Your task to perform on an android device: see tabs open on other devices in the chrome app Image 0: 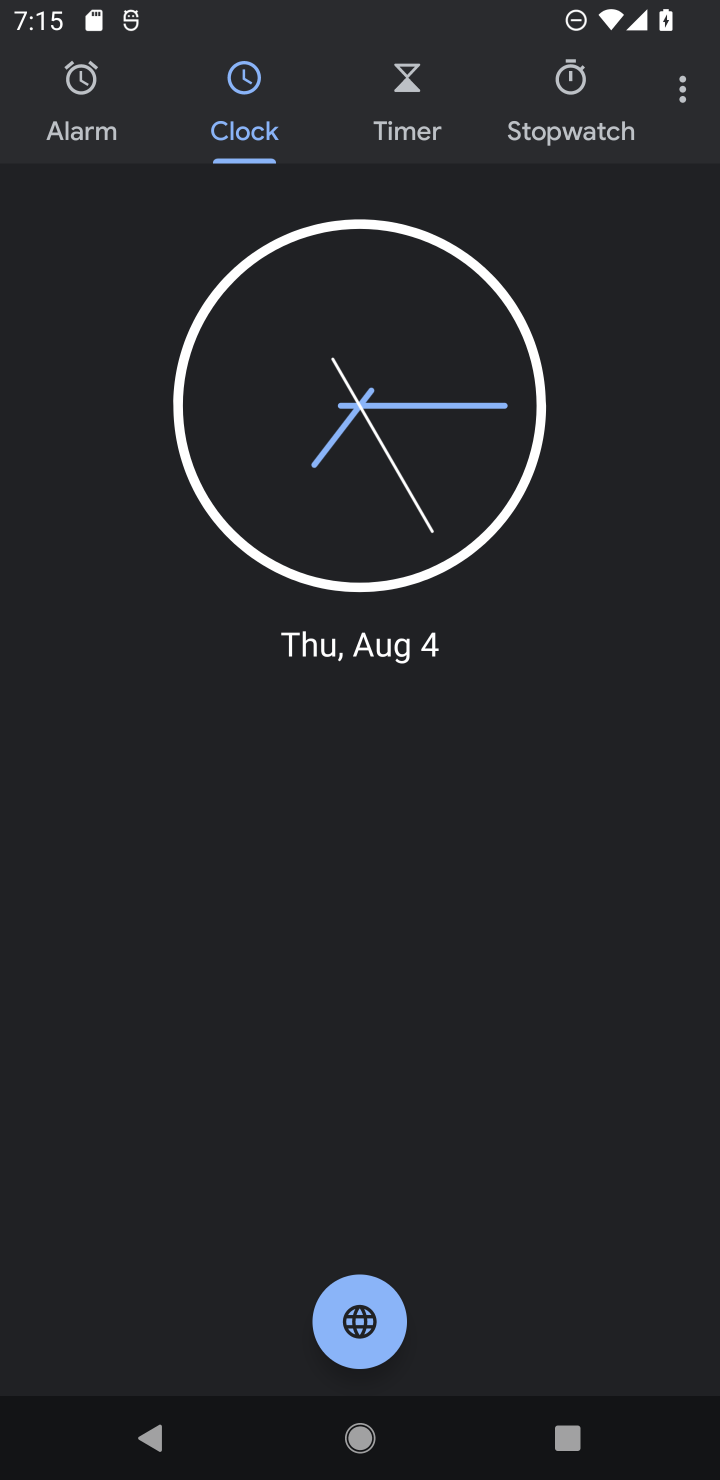
Step 0: press home button
Your task to perform on an android device: see tabs open on other devices in the chrome app Image 1: 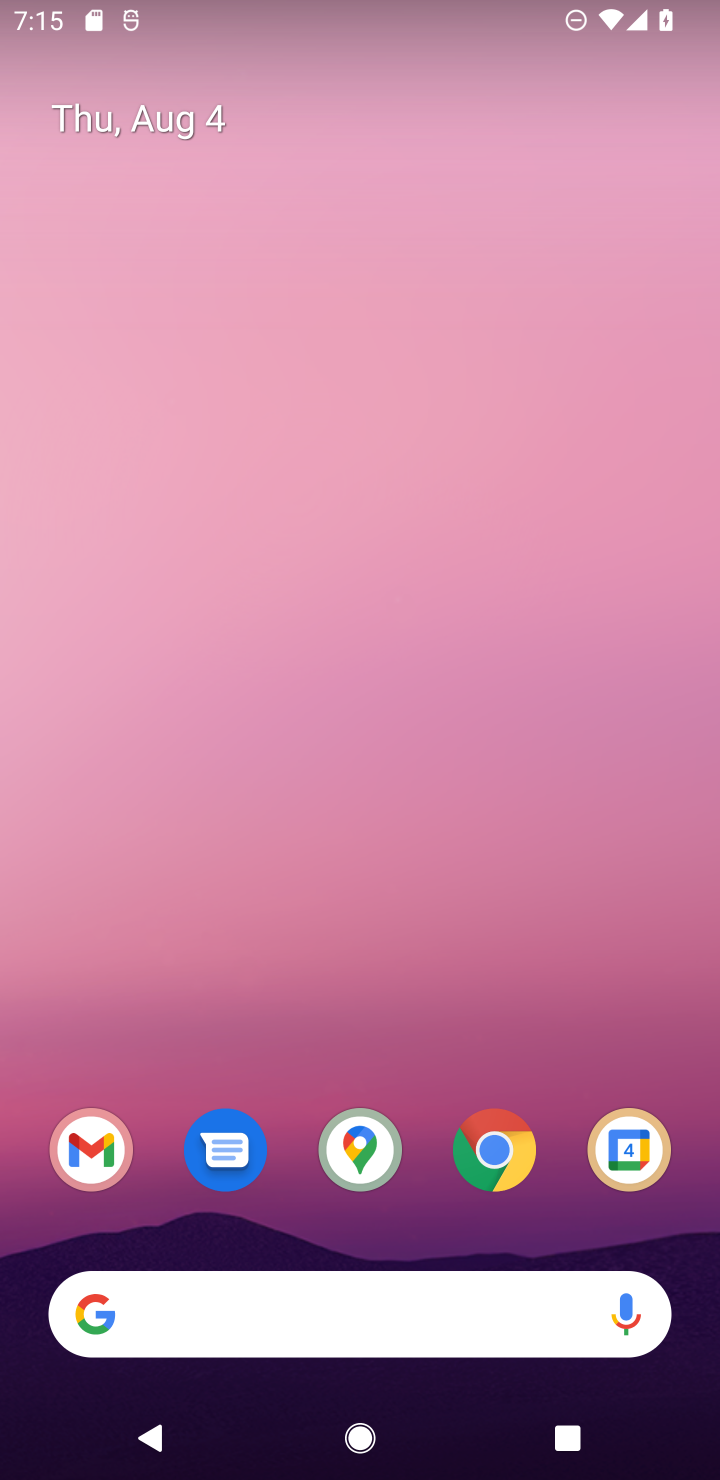
Step 1: drag from (383, 1189) to (370, 126)
Your task to perform on an android device: see tabs open on other devices in the chrome app Image 2: 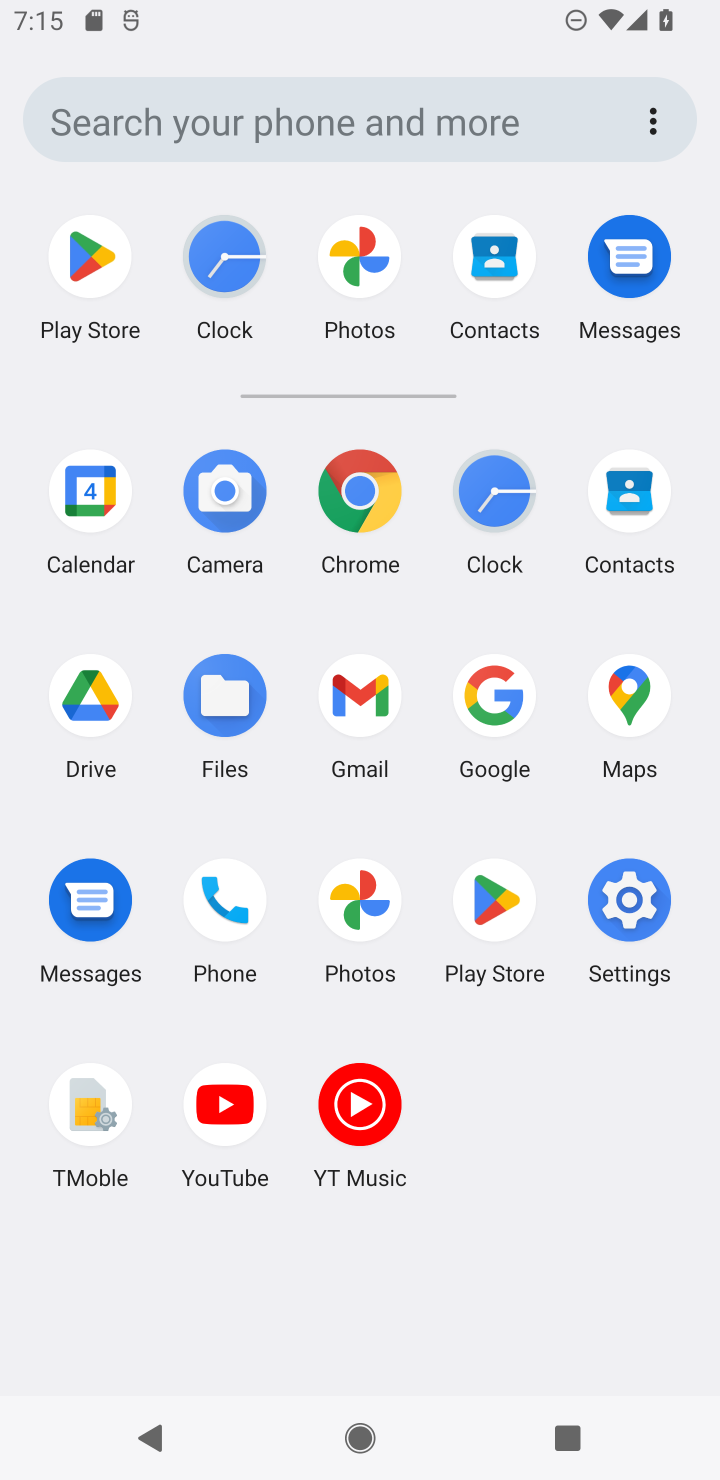
Step 2: click (374, 476)
Your task to perform on an android device: see tabs open on other devices in the chrome app Image 3: 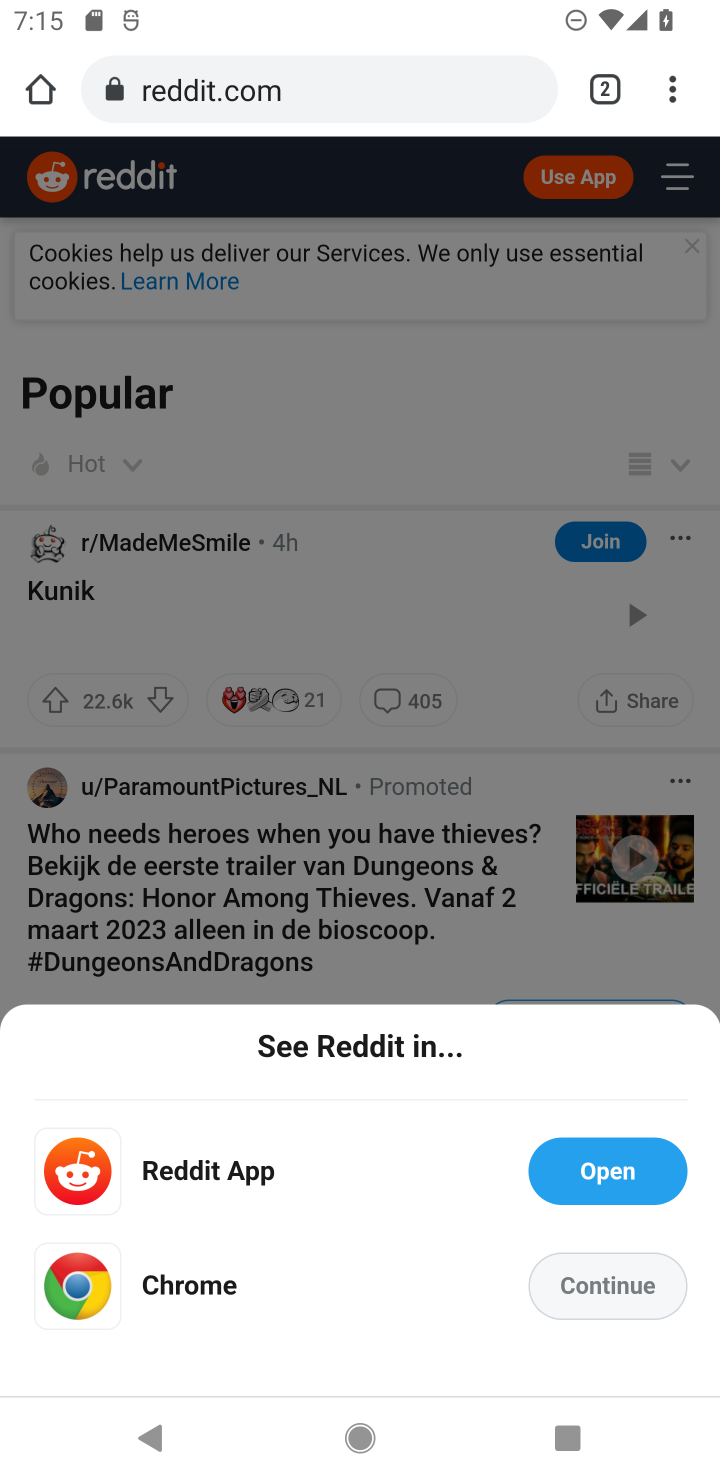
Step 3: drag from (656, 80) to (420, 703)
Your task to perform on an android device: see tabs open on other devices in the chrome app Image 4: 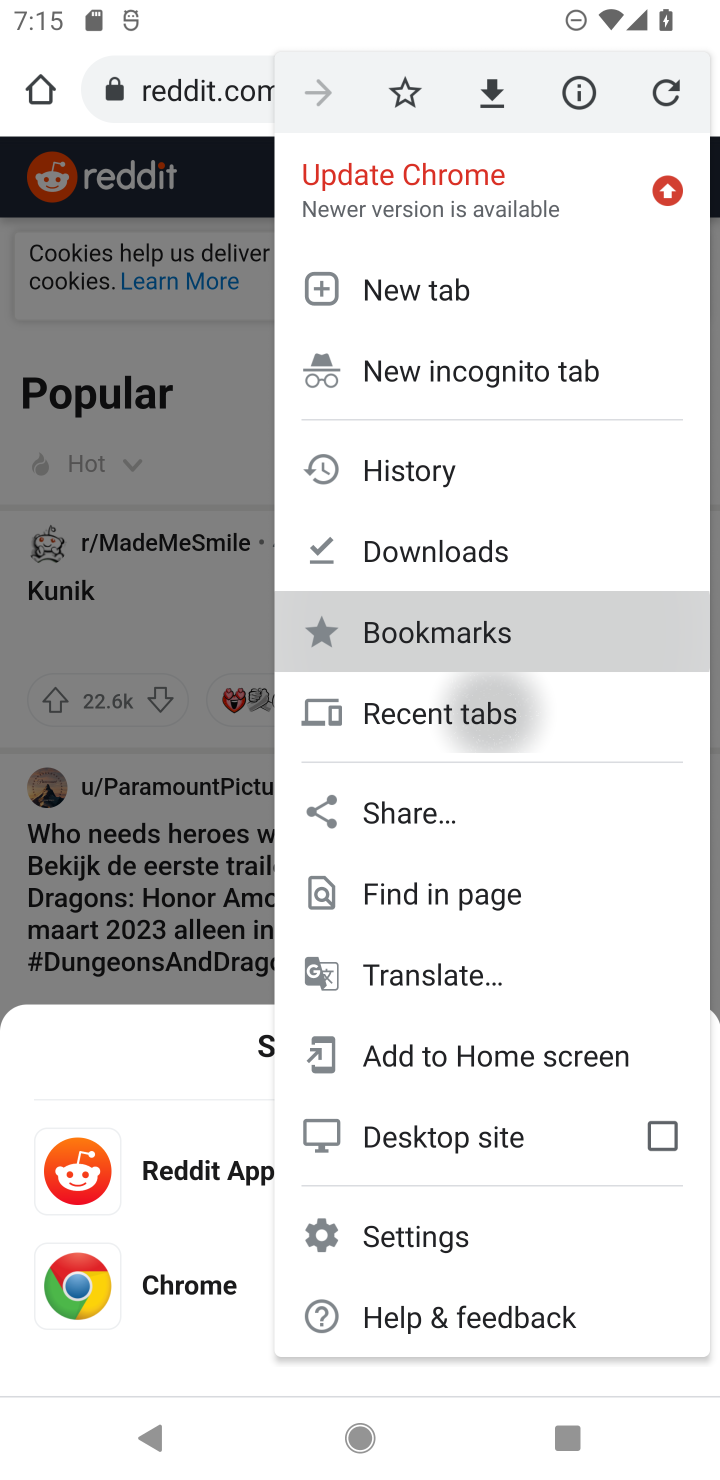
Step 4: click (420, 703)
Your task to perform on an android device: see tabs open on other devices in the chrome app Image 5: 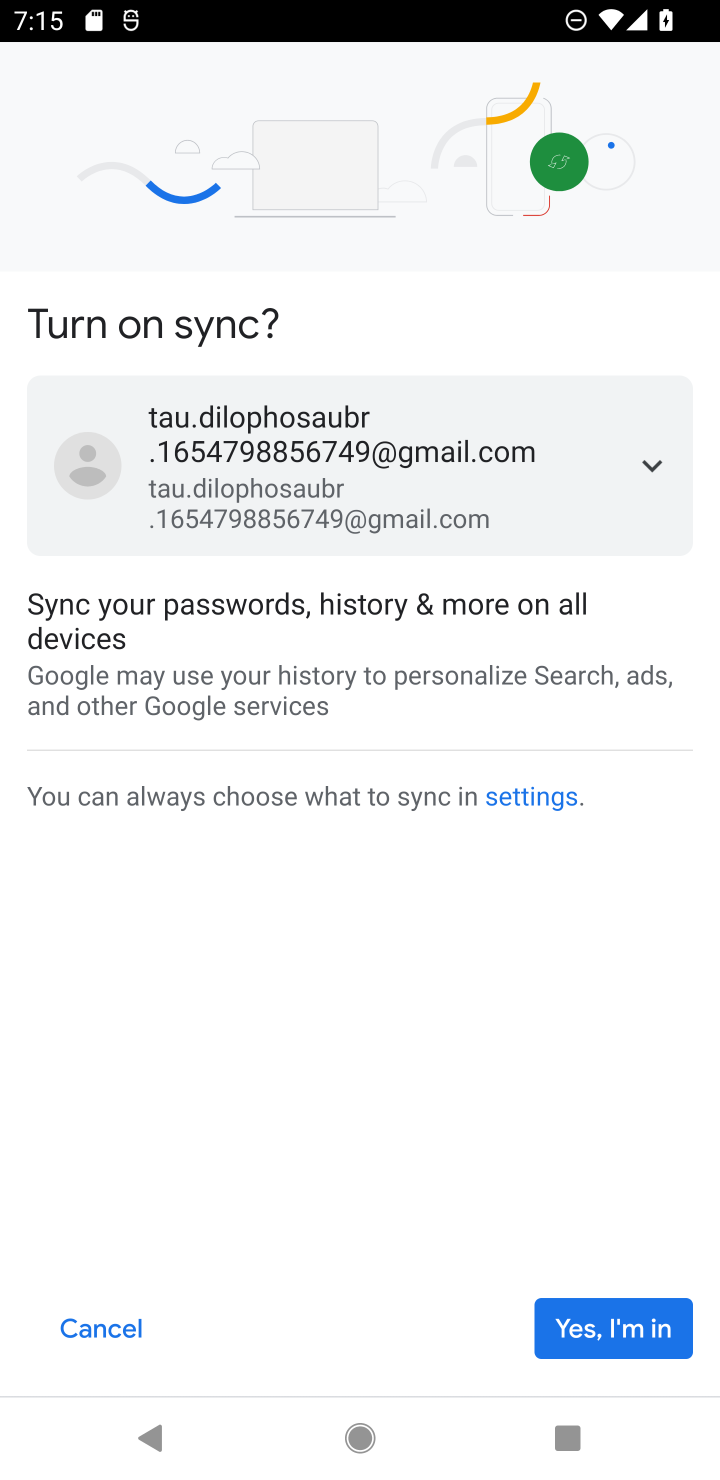
Step 5: task complete